Your task to perform on an android device: check battery use Image 0: 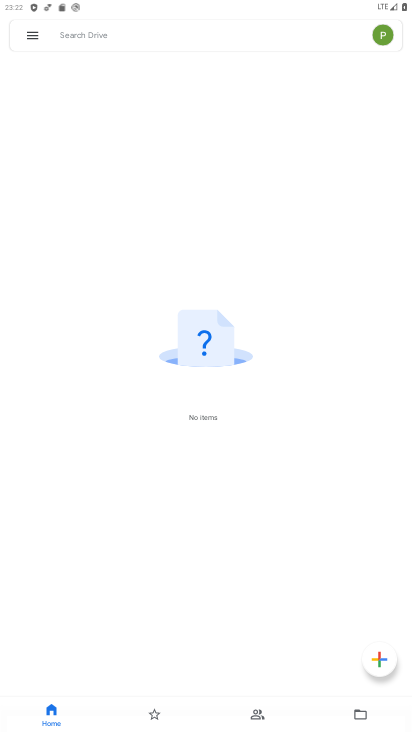
Step 0: press home button
Your task to perform on an android device: check battery use Image 1: 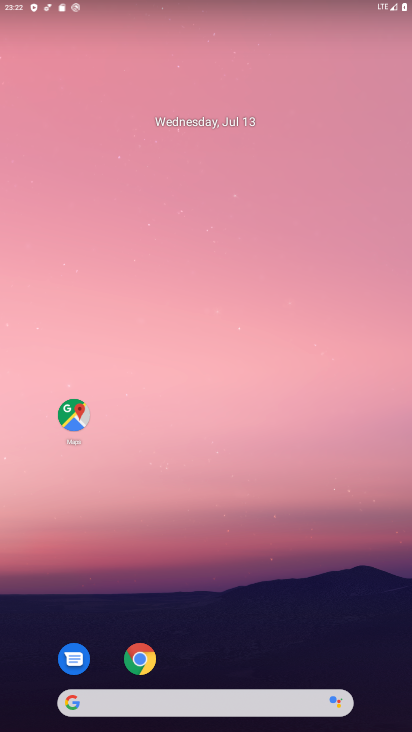
Step 1: drag from (368, 645) to (346, 89)
Your task to perform on an android device: check battery use Image 2: 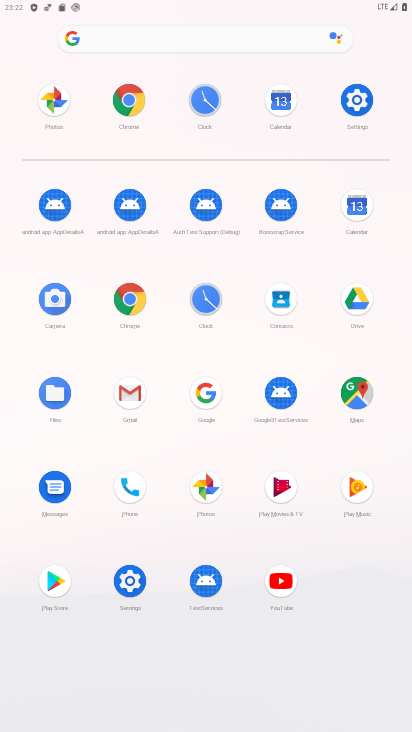
Step 2: click (129, 578)
Your task to perform on an android device: check battery use Image 3: 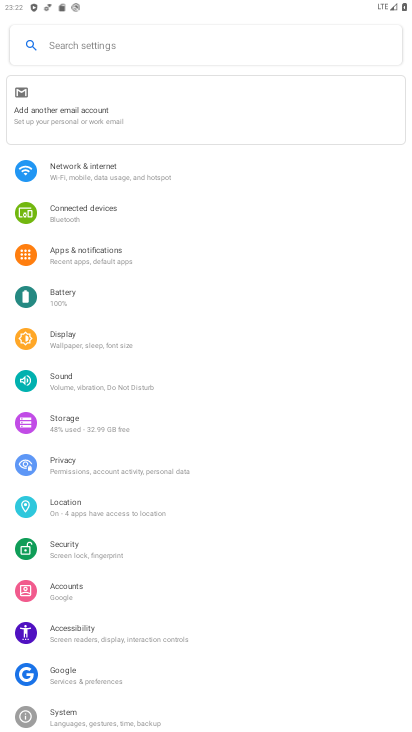
Step 3: click (62, 300)
Your task to perform on an android device: check battery use Image 4: 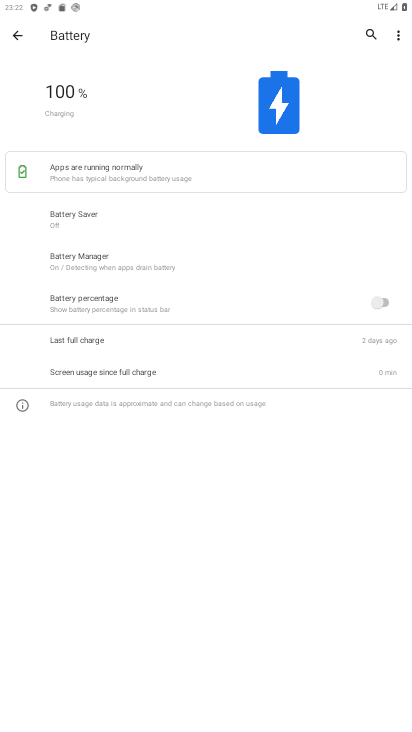
Step 4: click (395, 37)
Your task to perform on an android device: check battery use Image 5: 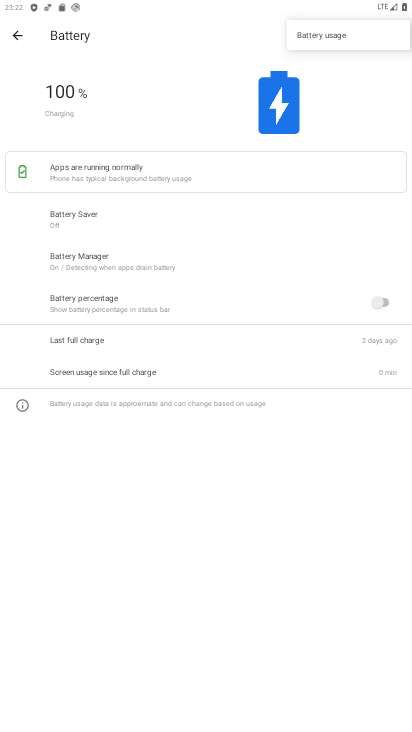
Step 5: click (312, 33)
Your task to perform on an android device: check battery use Image 6: 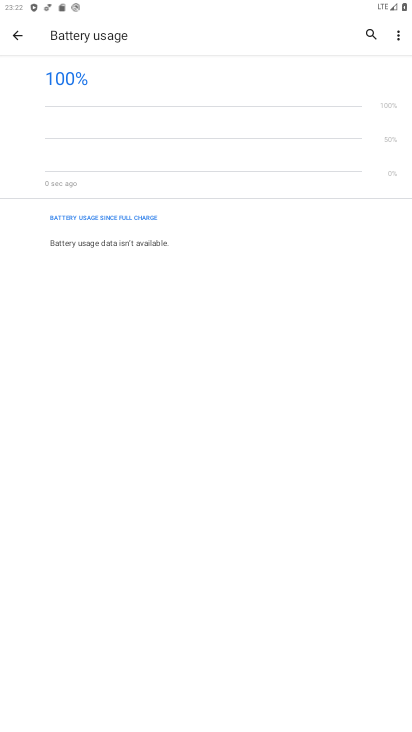
Step 6: task complete